Your task to perform on an android device: Is it going to rain today? Image 0: 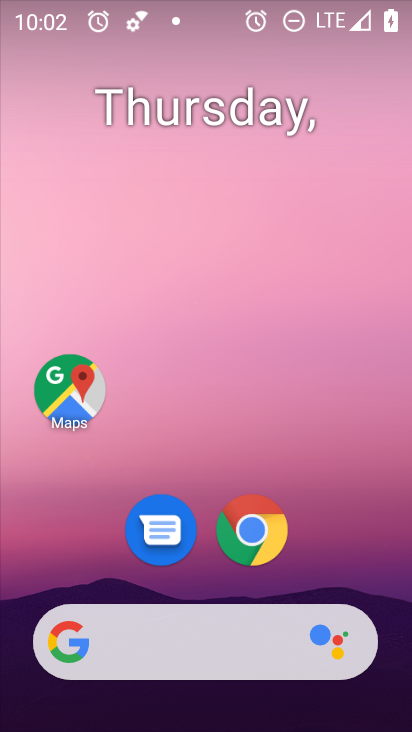
Step 0: drag from (260, 316) to (228, 35)
Your task to perform on an android device: Is it going to rain today? Image 1: 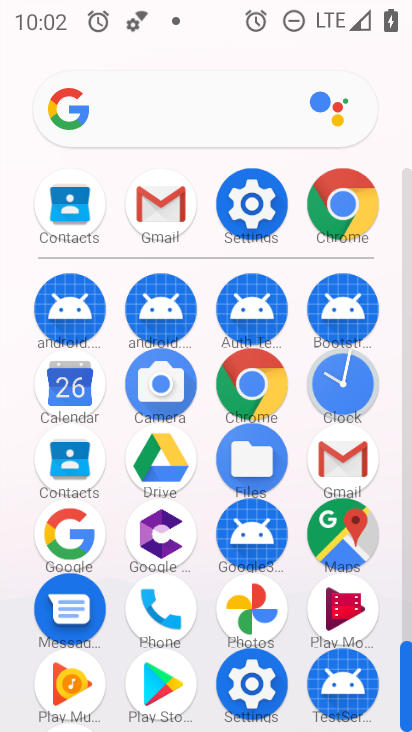
Step 1: drag from (18, 577) to (8, 232)
Your task to perform on an android device: Is it going to rain today? Image 2: 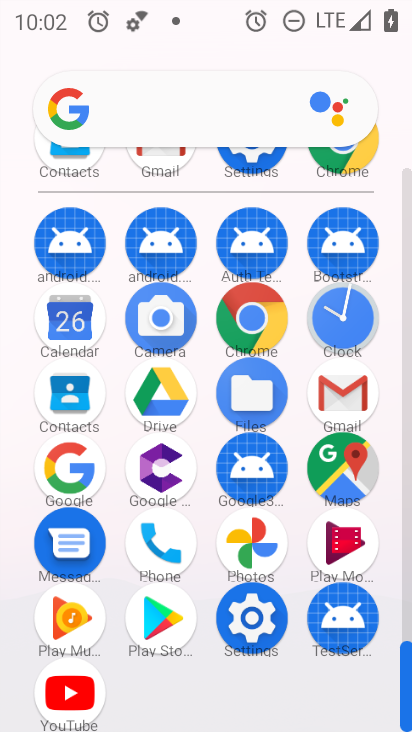
Step 2: click (246, 312)
Your task to perform on an android device: Is it going to rain today? Image 3: 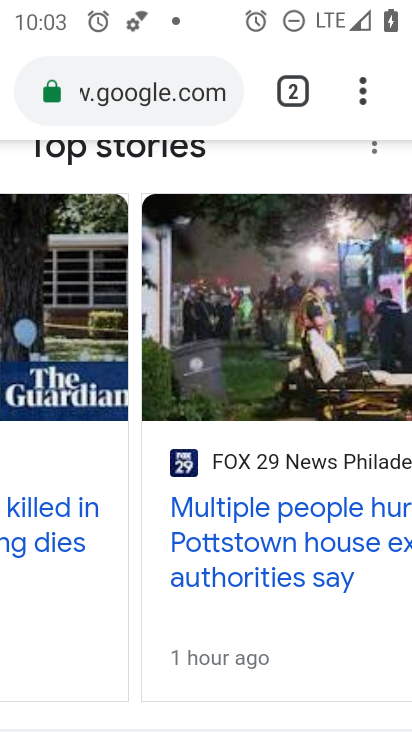
Step 3: click (167, 90)
Your task to perform on an android device: Is it going to rain today? Image 4: 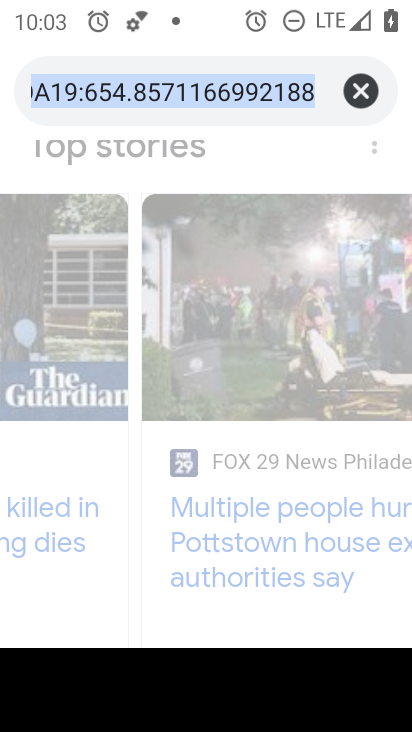
Step 4: click (348, 87)
Your task to perform on an android device: Is it going to rain today? Image 5: 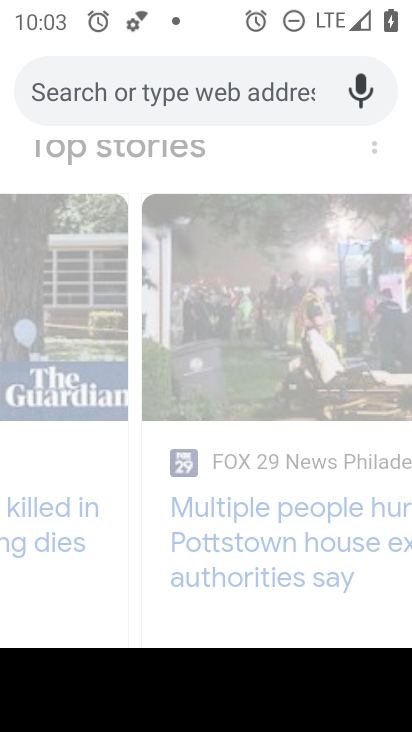
Step 5: type "Is it going to rain today?"
Your task to perform on an android device: Is it going to rain today? Image 6: 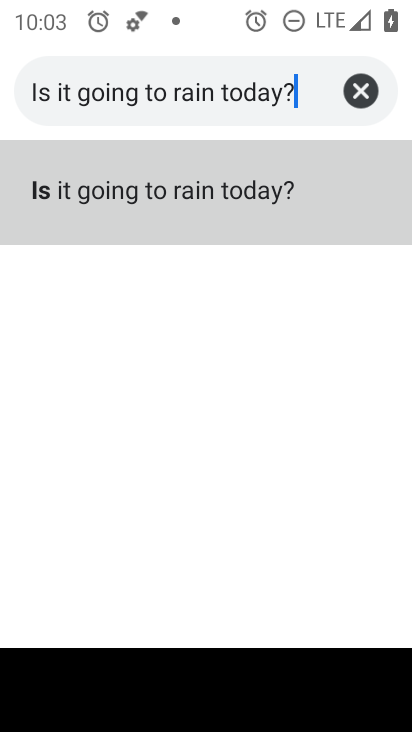
Step 6: type ""
Your task to perform on an android device: Is it going to rain today? Image 7: 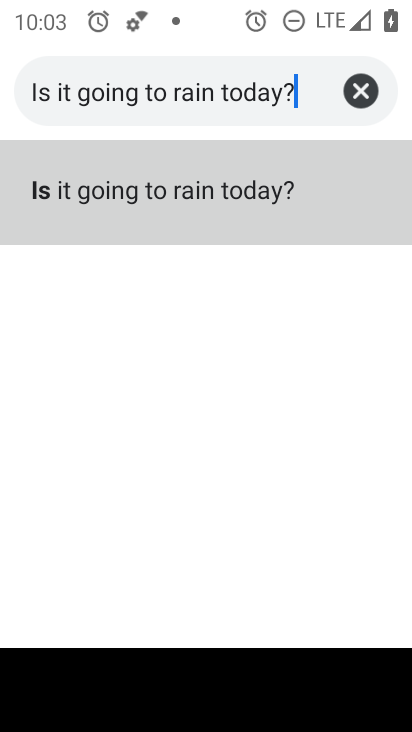
Step 7: click (221, 187)
Your task to perform on an android device: Is it going to rain today? Image 8: 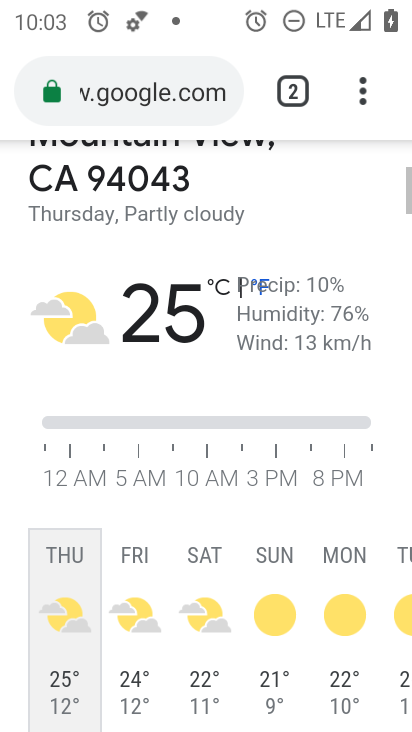
Step 8: task complete